Your task to perform on an android device: turn off priority inbox in the gmail app Image 0: 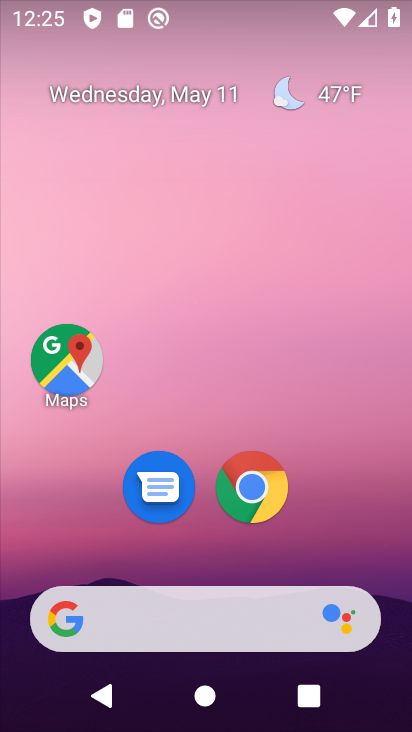
Step 0: drag from (335, 494) to (291, 62)
Your task to perform on an android device: turn off priority inbox in the gmail app Image 1: 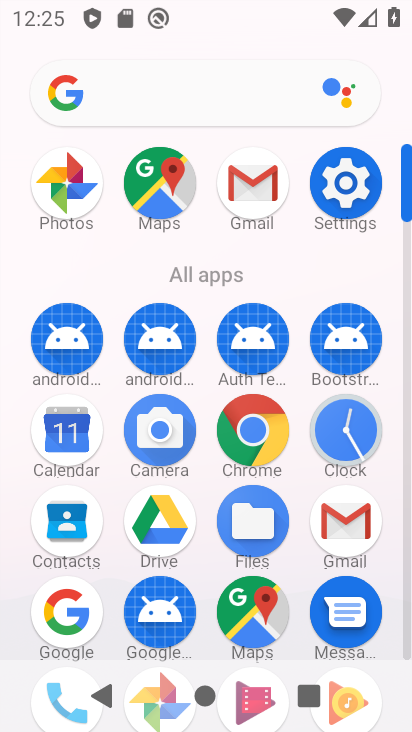
Step 1: click (361, 534)
Your task to perform on an android device: turn off priority inbox in the gmail app Image 2: 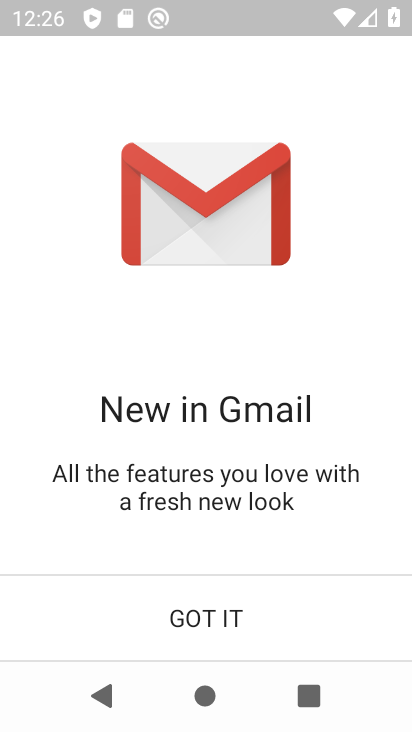
Step 2: click (202, 626)
Your task to perform on an android device: turn off priority inbox in the gmail app Image 3: 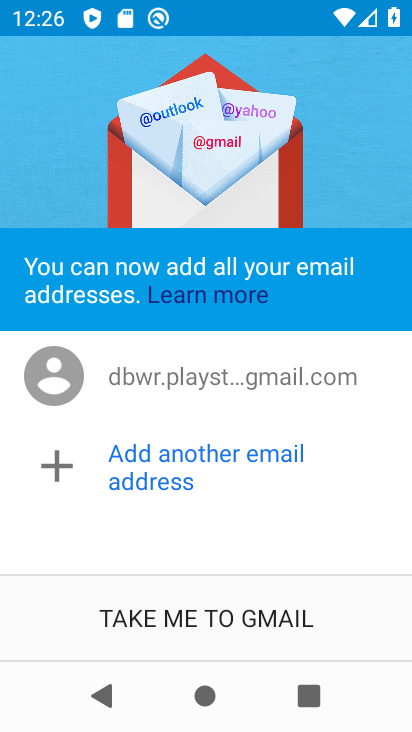
Step 3: click (199, 609)
Your task to perform on an android device: turn off priority inbox in the gmail app Image 4: 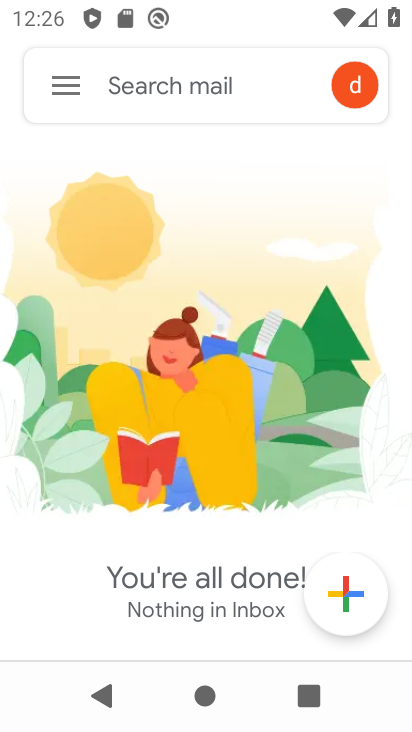
Step 4: drag from (64, 91) to (69, 131)
Your task to perform on an android device: turn off priority inbox in the gmail app Image 5: 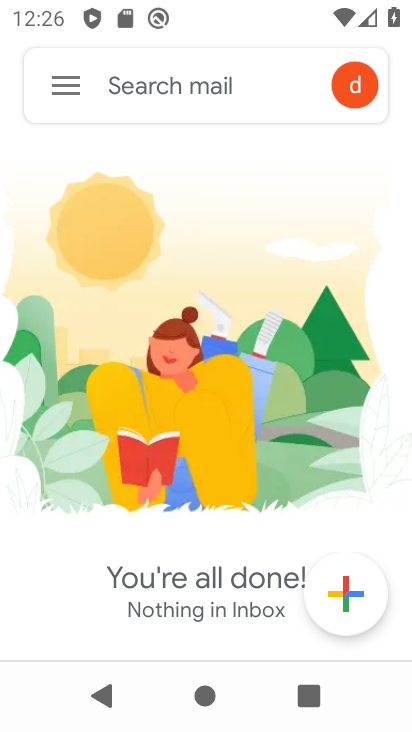
Step 5: click (63, 96)
Your task to perform on an android device: turn off priority inbox in the gmail app Image 6: 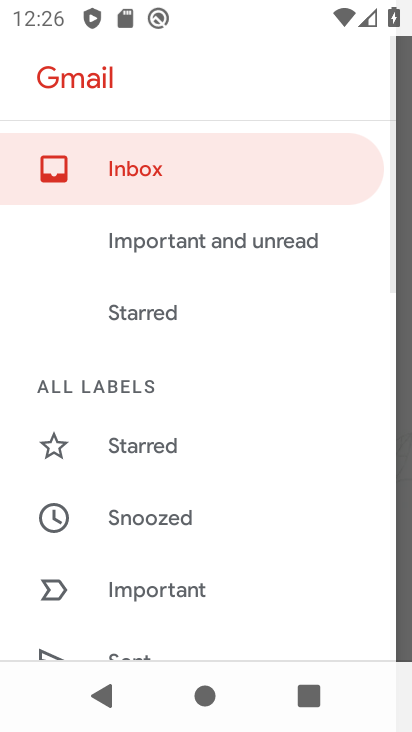
Step 6: drag from (240, 598) to (259, 279)
Your task to perform on an android device: turn off priority inbox in the gmail app Image 7: 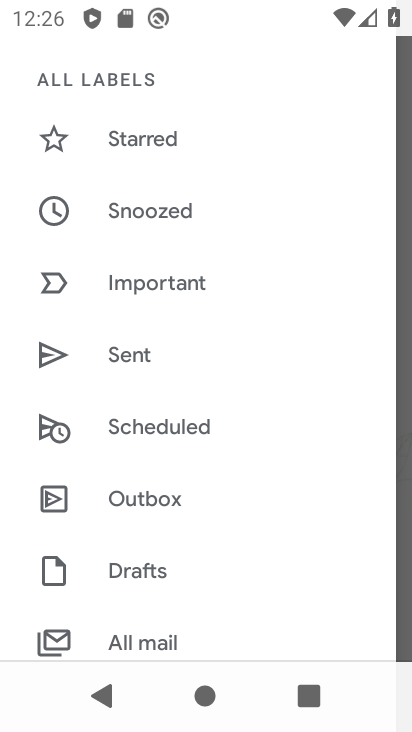
Step 7: drag from (256, 617) to (280, 269)
Your task to perform on an android device: turn off priority inbox in the gmail app Image 8: 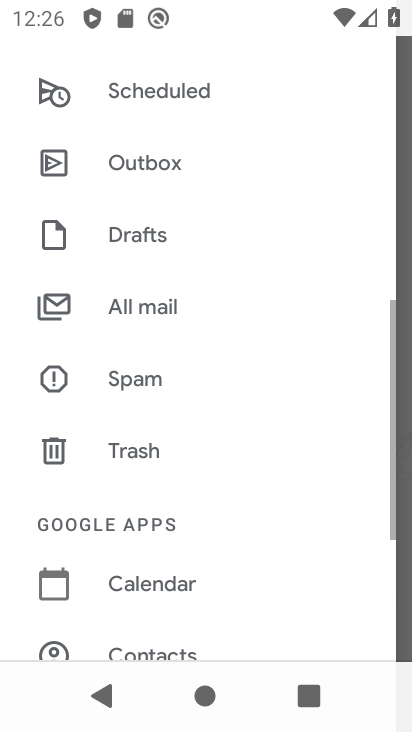
Step 8: drag from (237, 596) to (272, 149)
Your task to perform on an android device: turn off priority inbox in the gmail app Image 9: 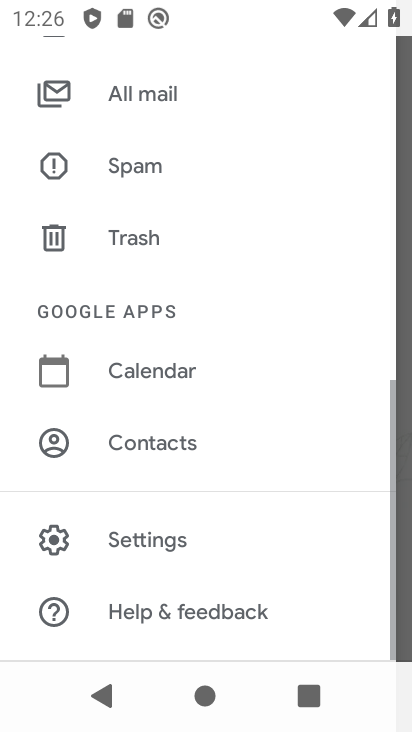
Step 9: click (187, 544)
Your task to perform on an android device: turn off priority inbox in the gmail app Image 10: 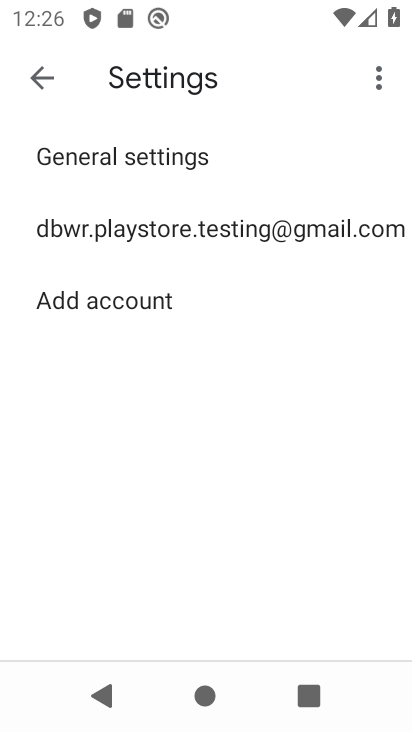
Step 10: click (197, 229)
Your task to perform on an android device: turn off priority inbox in the gmail app Image 11: 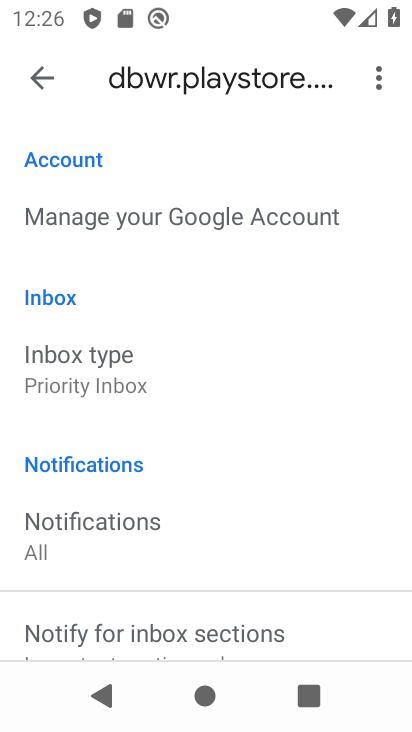
Step 11: click (141, 377)
Your task to perform on an android device: turn off priority inbox in the gmail app Image 12: 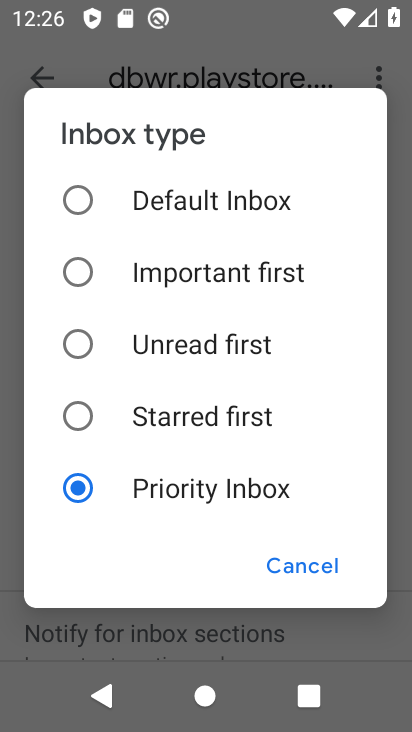
Step 12: task complete